Your task to perform on an android device: Open calendar and show me the fourth week of next month Image 0: 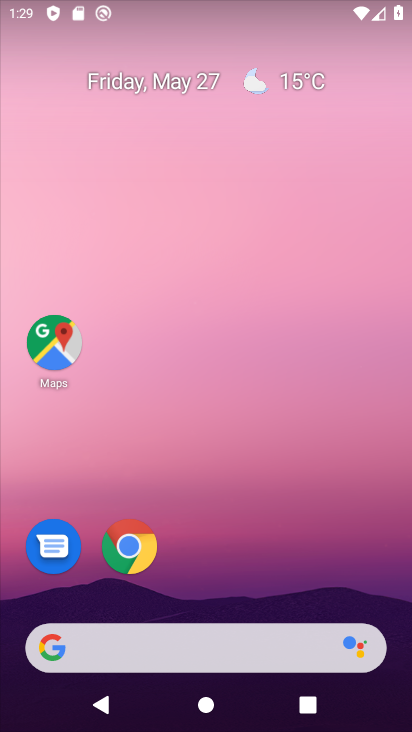
Step 0: drag from (337, 587) to (307, 188)
Your task to perform on an android device: Open calendar and show me the fourth week of next month Image 1: 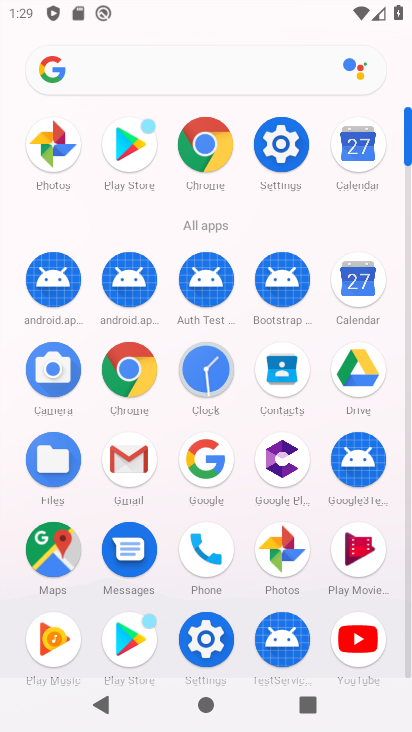
Step 1: click (355, 158)
Your task to perform on an android device: Open calendar and show me the fourth week of next month Image 2: 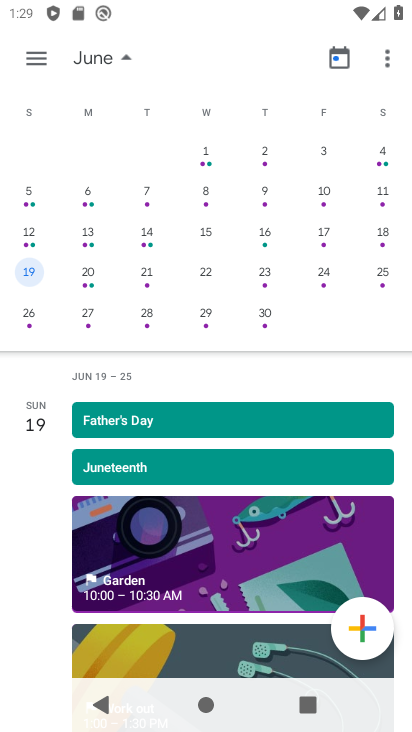
Step 2: task complete